Your task to perform on an android device: Go to Reddit.com Image 0: 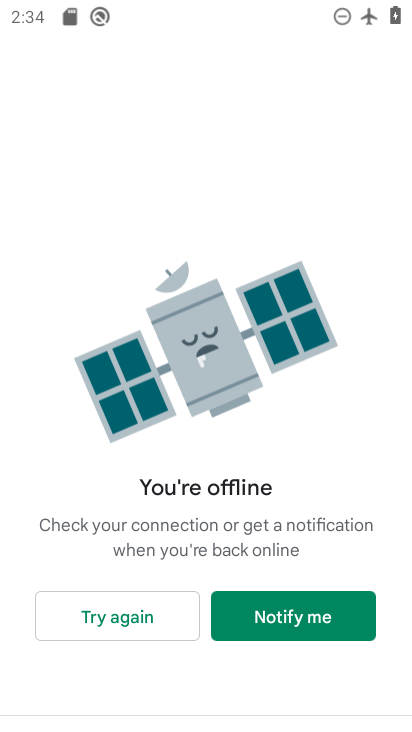
Step 0: press home button
Your task to perform on an android device: Go to Reddit.com Image 1: 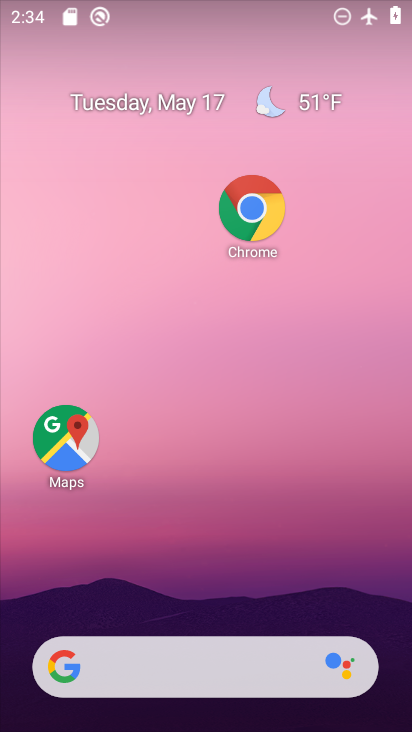
Step 1: click (260, 218)
Your task to perform on an android device: Go to Reddit.com Image 2: 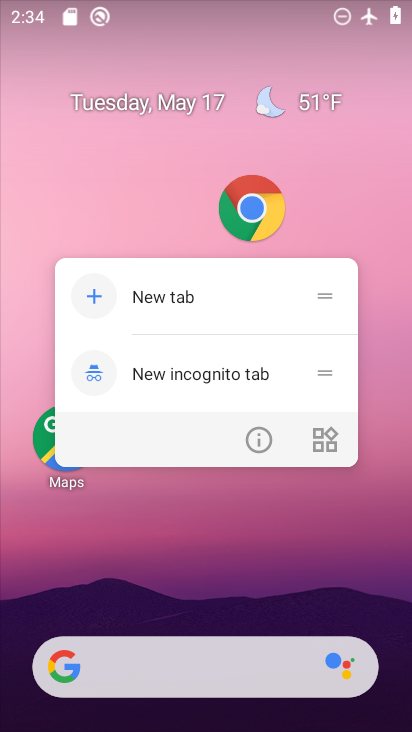
Step 2: click (241, 203)
Your task to perform on an android device: Go to Reddit.com Image 3: 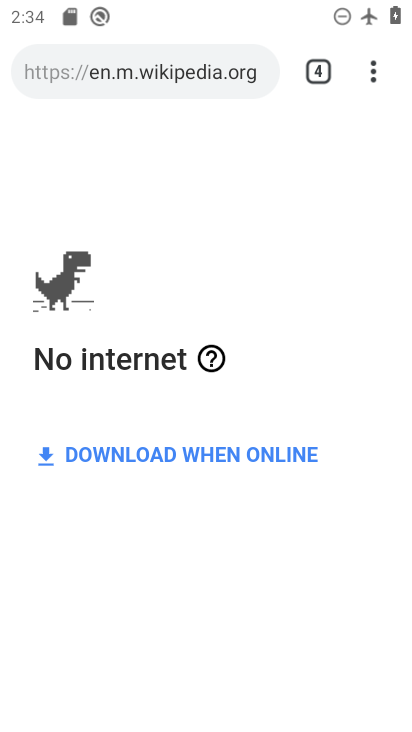
Step 3: task complete